Your task to perform on an android device: Clear the cart on costco.com. Search for logitech g903 on costco.com, select the first entry, add it to the cart, then select checkout. Image 0: 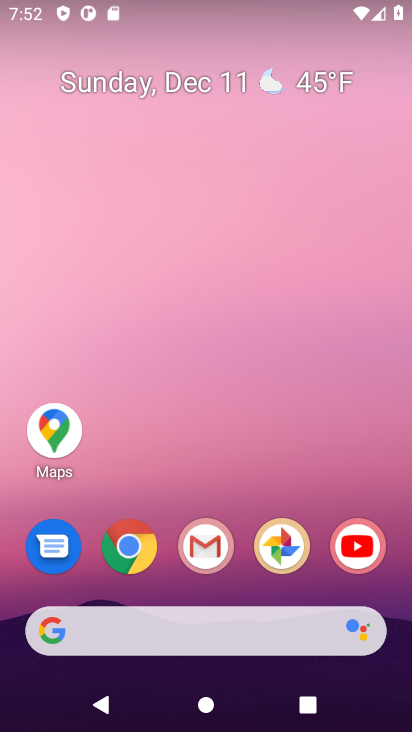
Step 0: click (126, 546)
Your task to perform on an android device: Clear the cart on costco.com. Search for logitech g903 on costco.com, select the first entry, add it to the cart, then select checkout. Image 1: 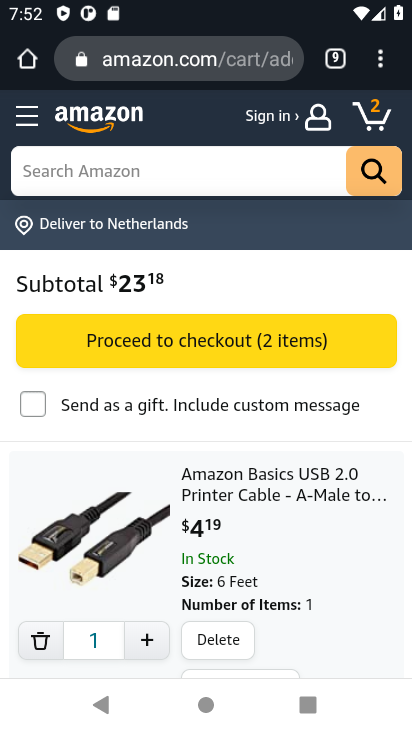
Step 1: click (173, 58)
Your task to perform on an android device: Clear the cart on costco.com. Search for logitech g903 on costco.com, select the first entry, add it to the cart, then select checkout. Image 2: 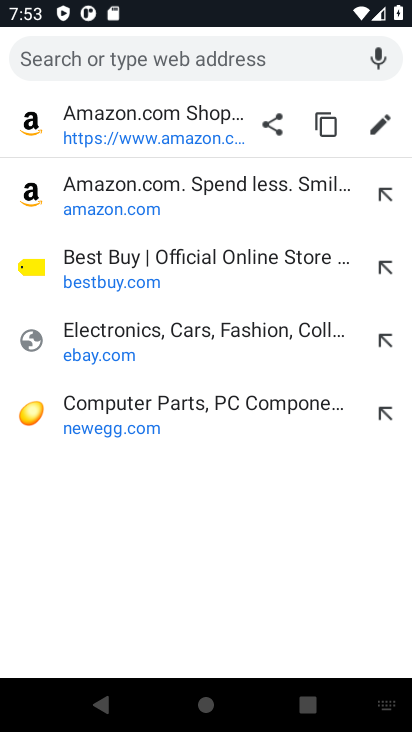
Step 2: type "costco.com"
Your task to perform on an android device: Clear the cart on costco.com. Search for logitech g903 on costco.com, select the first entry, add it to the cart, then select checkout. Image 3: 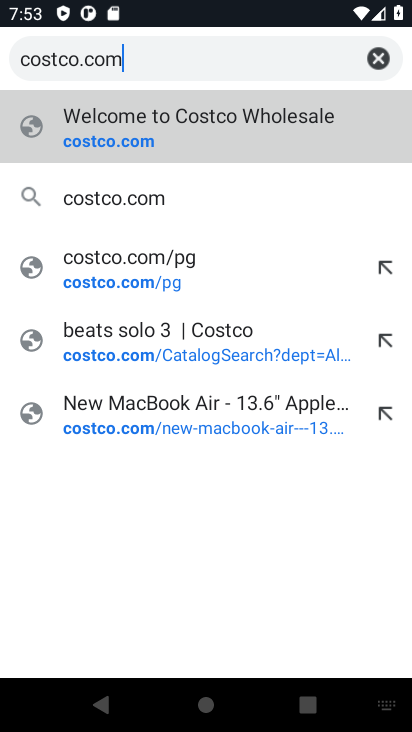
Step 3: click (113, 145)
Your task to perform on an android device: Clear the cart on costco.com. Search for logitech g903 on costco.com, select the first entry, add it to the cart, then select checkout. Image 4: 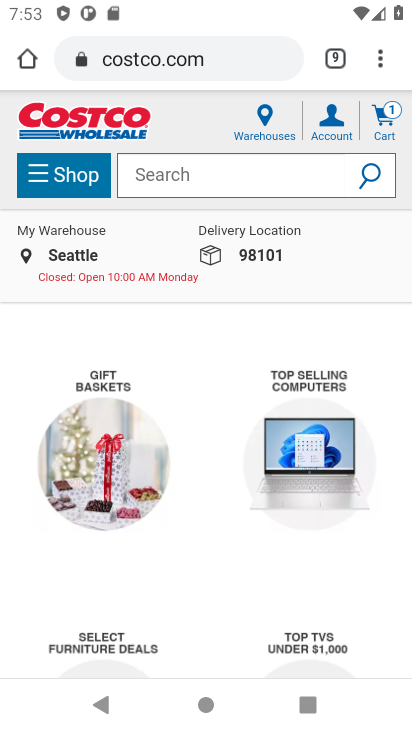
Step 4: click (384, 124)
Your task to perform on an android device: Clear the cart on costco.com. Search for logitech g903 on costco.com, select the first entry, add it to the cart, then select checkout. Image 5: 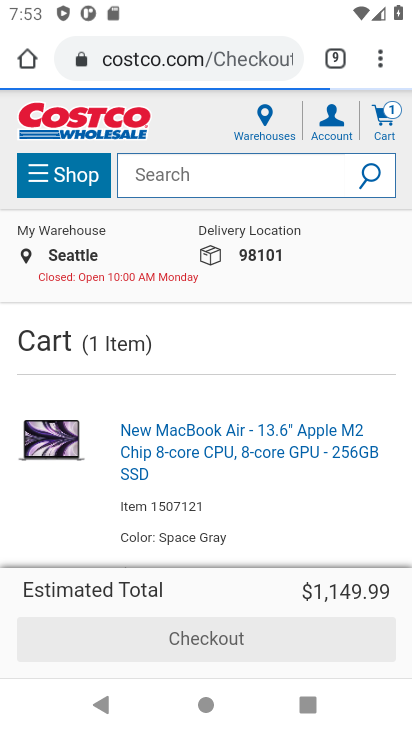
Step 5: drag from (176, 506) to (174, 200)
Your task to perform on an android device: Clear the cart on costco.com. Search for logitech g903 on costco.com, select the first entry, add it to the cart, then select checkout. Image 6: 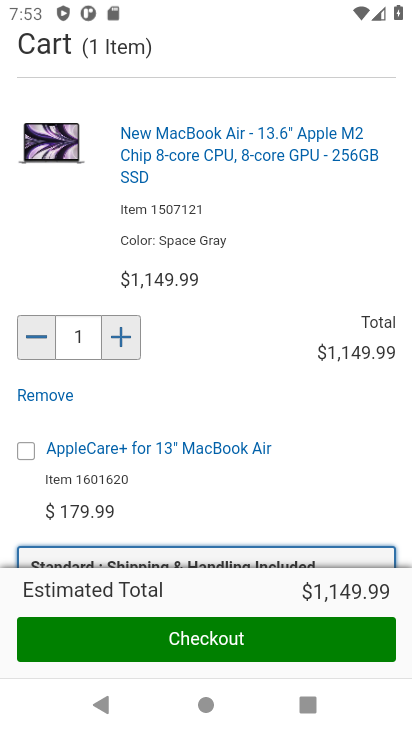
Step 6: drag from (167, 492) to (167, 189)
Your task to perform on an android device: Clear the cart on costco.com. Search for logitech g903 on costco.com, select the first entry, add it to the cart, then select checkout. Image 7: 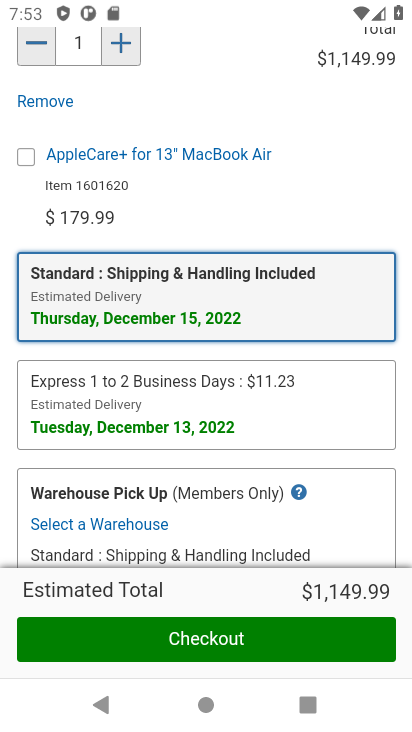
Step 7: drag from (273, 503) to (257, 153)
Your task to perform on an android device: Clear the cart on costco.com. Search for logitech g903 on costco.com, select the first entry, add it to the cart, then select checkout. Image 8: 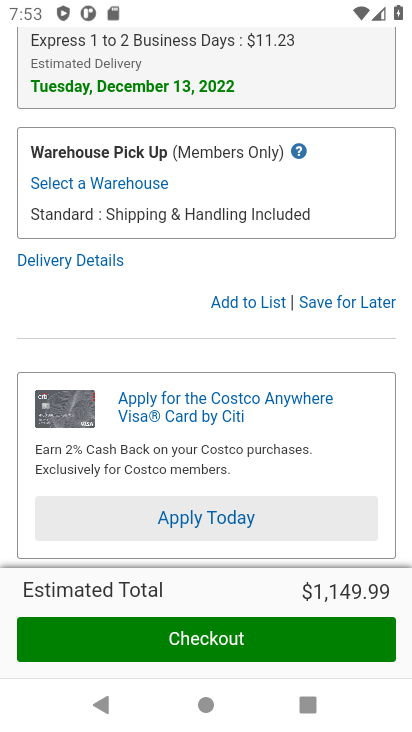
Step 8: click (348, 309)
Your task to perform on an android device: Clear the cart on costco.com. Search for logitech g903 on costco.com, select the first entry, add it to the cart, then select checkout. Image 9: 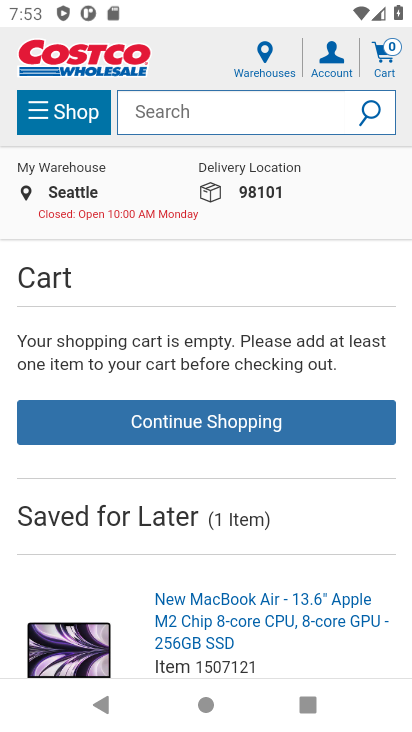
Step 9: click (178, 115)
Your task to perform on an android device: Clear the cart on costco.com. Search for logitech g903 on costco.com, select the first entry, add it to the cart, then select checkout. Image 10: 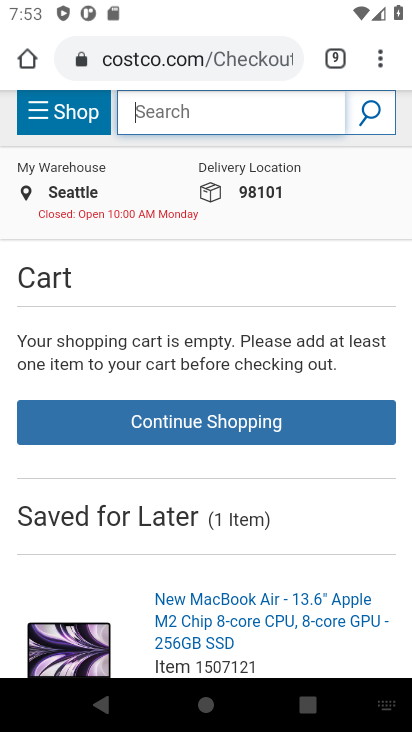
Step 10: type "logitech g903"
Your task to perform on an android device: Clear the cart on costco.com. Search for logitech g903 on costco.com, select the first entry, add it to the cart, then select checkout. Image 11: 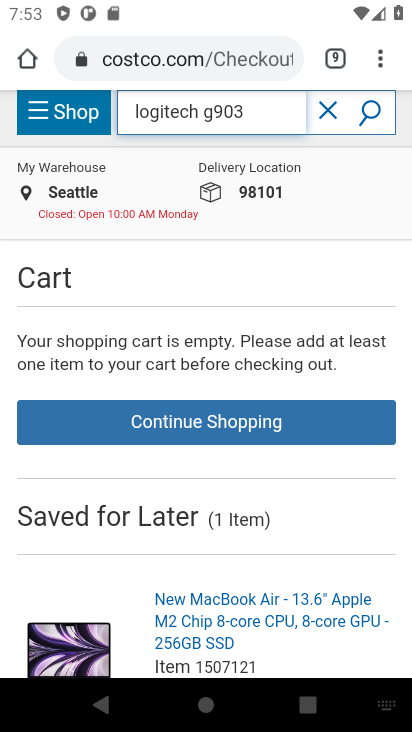
Step 11: click (377, 109)
Your task to perform on an android device: Clear the cart on costco.com. Search for logitech g903 on costco.com, select the first entry, add it to the cart, then select checkout. Image 12: 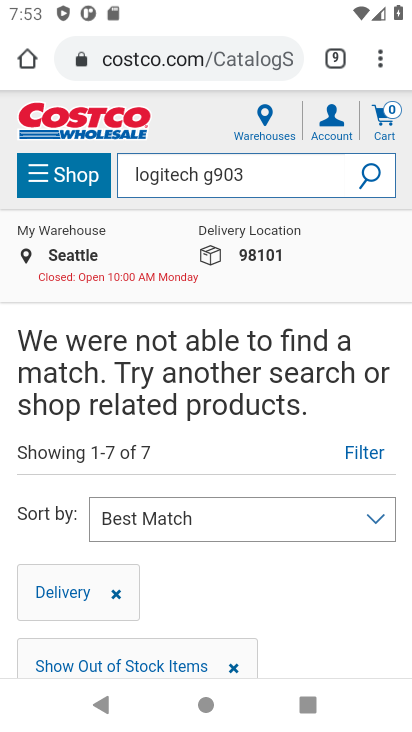
Step 12: task complete